Your task to perform on an android device: empty trash in google photos Image 0: 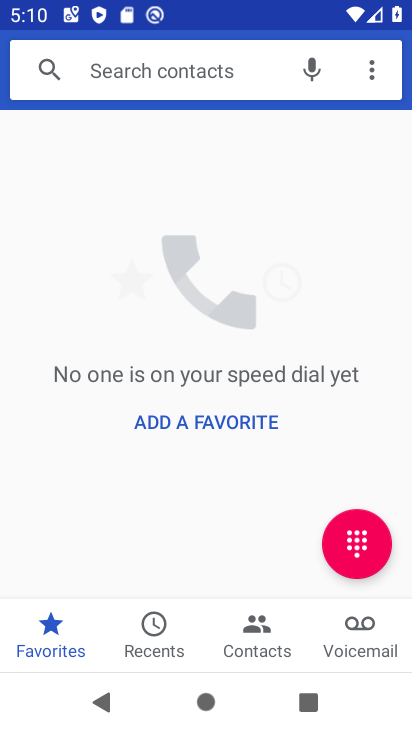
Step 0: press home button
Your task to perform on an android device: empty trash in google photos Image 1: 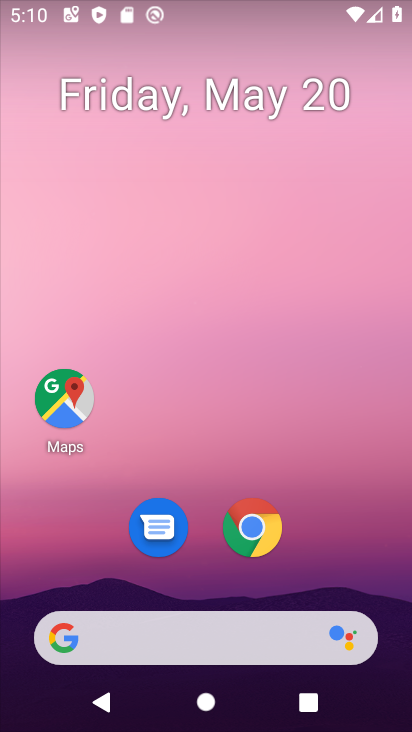
Step 1: drag from (355, 617) to (365, 99)
Your task to perform on an android device: empty trash in google photos Image 2: 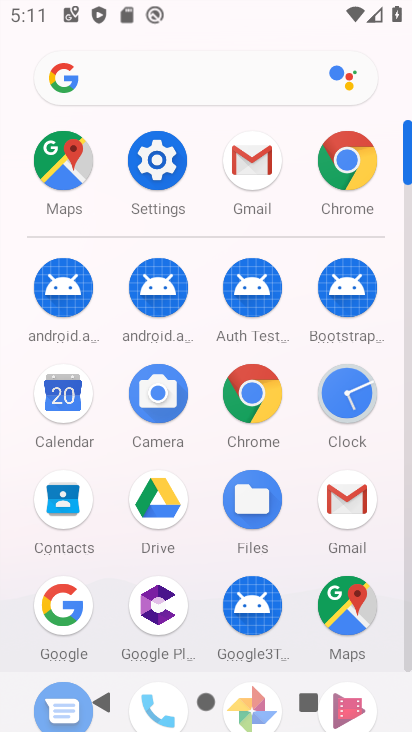
Step 2: drag from (282, 635) to (305, 303)
Your task to perform on an android device: empty trash in google photos Image 3: 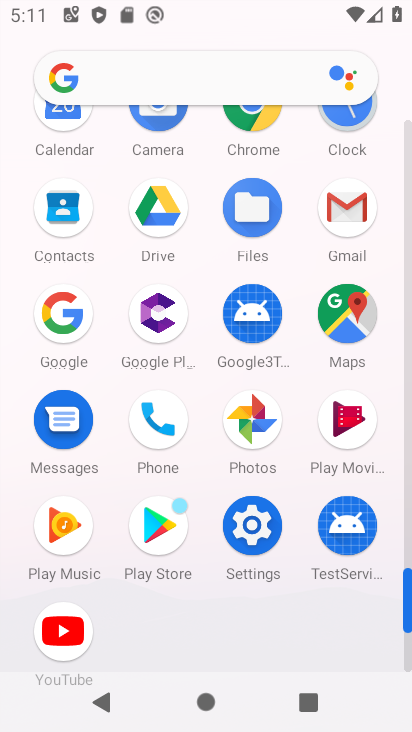
Step 3: click (258, 586)
Your task to perform on an android device: empty trash in google photos Image 4: 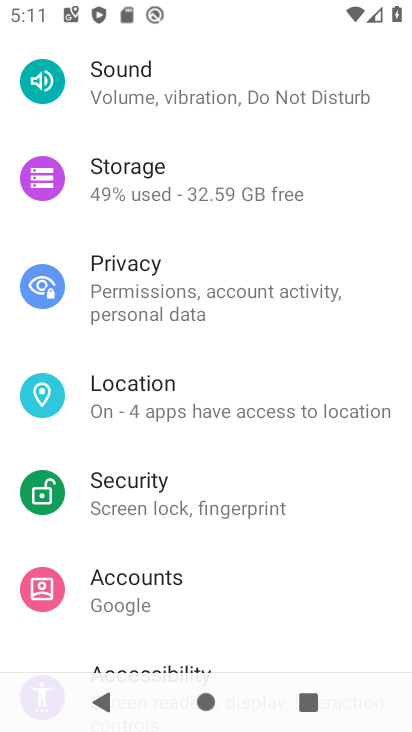
Step 4: press back button
Your task to perform on an android device: empty trash in google photos Image 5: 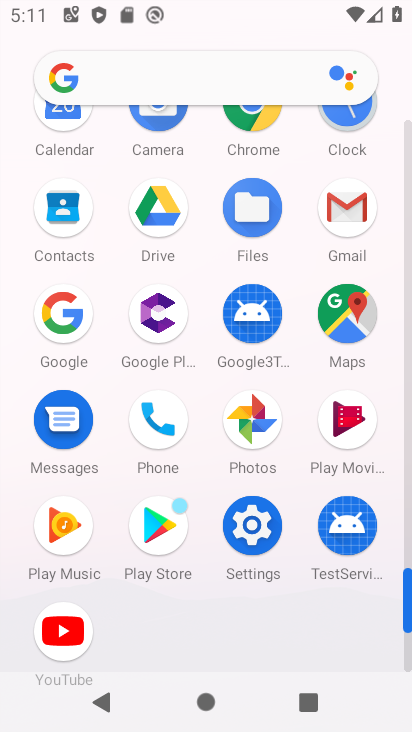
Step 5: click (265, 427)
Your task to perform on an android device: empty trash in google photos Image 6: 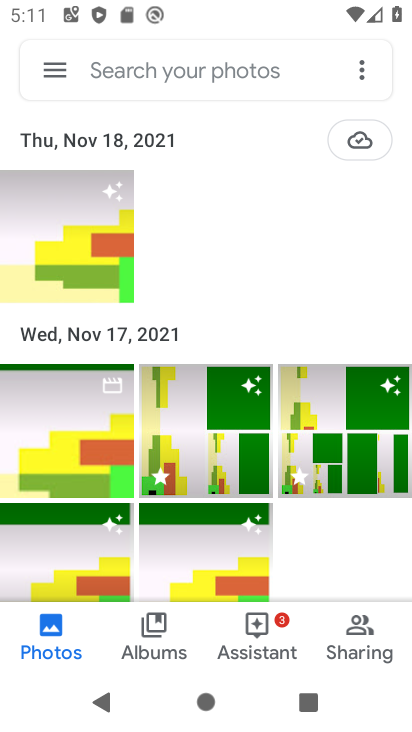
Step 6: click (55, 59)
Your task to perform on an android device: empty trash in google photos Image 7: 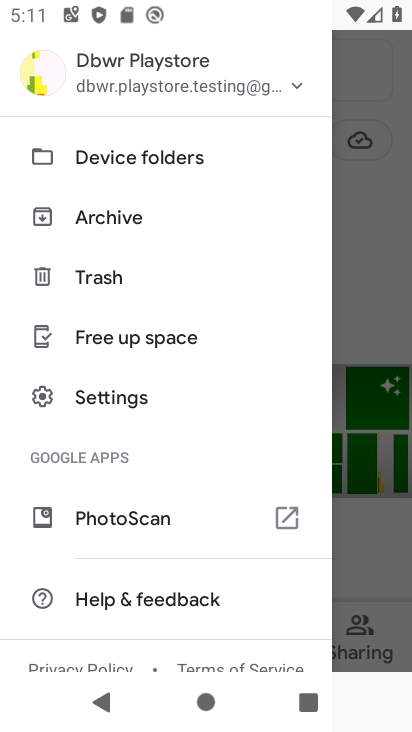
Step 7: click (109, 275)
Your task to perform on an android device: empty trash in google photos Image 8: 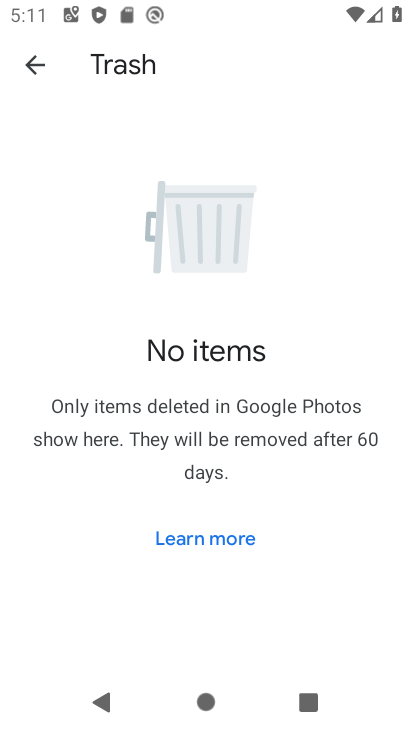
Step 8: task complete